Your task to perform on an android device: turn vacation reply on in the gmail app Image 0: 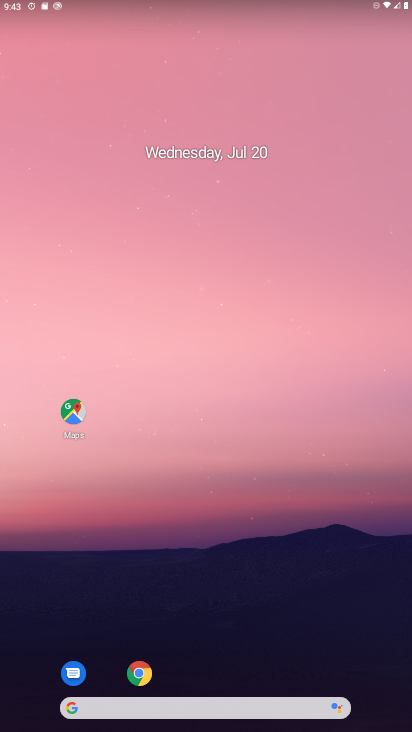
Step 0: drag from (340, 632) to (213, 147)
Your task to perform on an android device: turn vacation reply on in the gmail app Image 1: 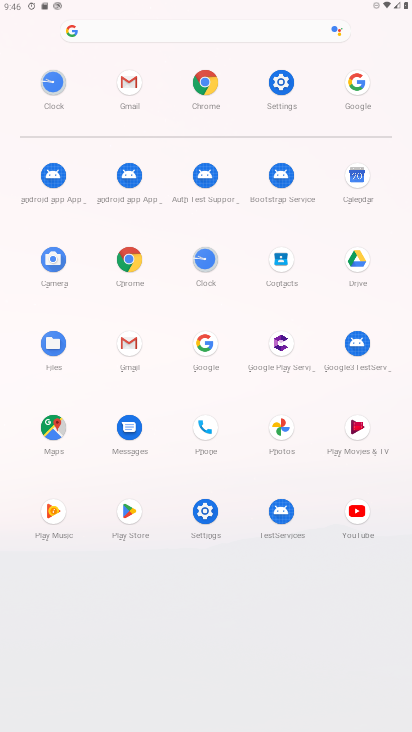
Step 1: click (121, 347)
Your task to perform on an android device: turn vacation reply on in the gmail app Image 2: 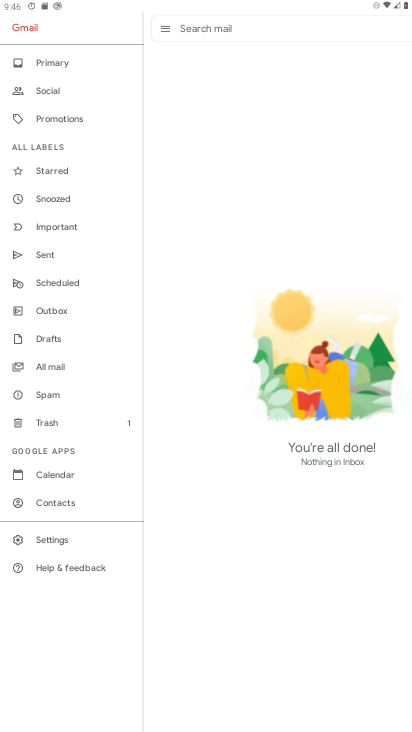
Step 2: click (60, 543)
Your task to perform on an android device: turn vacation reply on in the gmail app Image 3: 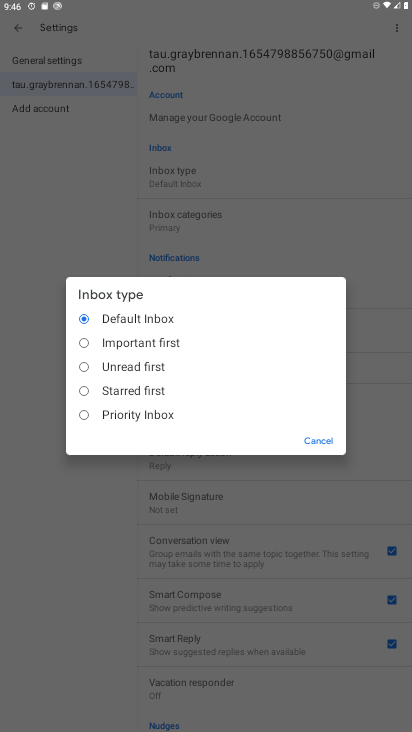
Step 3: click (306, 445)
Your task to perform on an android device: turn vacation reply on in the gmail app Image 4: 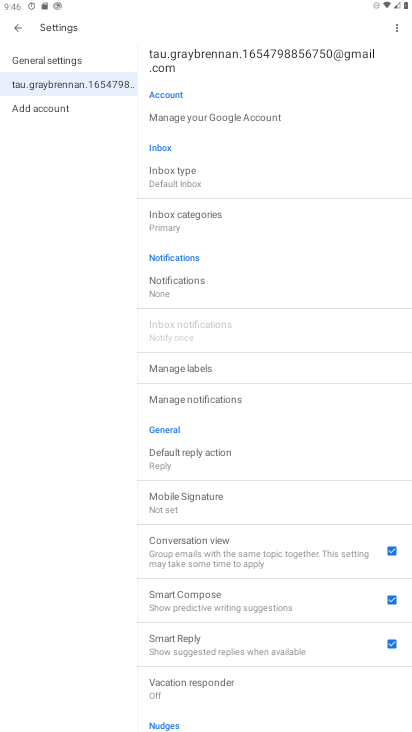
Step 4: click (214, 682)
Your task to perform on an android device: turn vacation reply on in the gmail app Image 5: 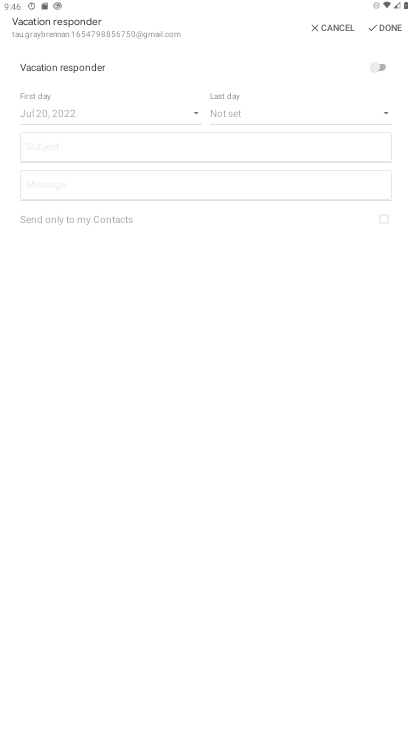
Step 5: click (379, 66)
Your task to perform on an android device: turn vacation reply on in the gmail app Image 6: 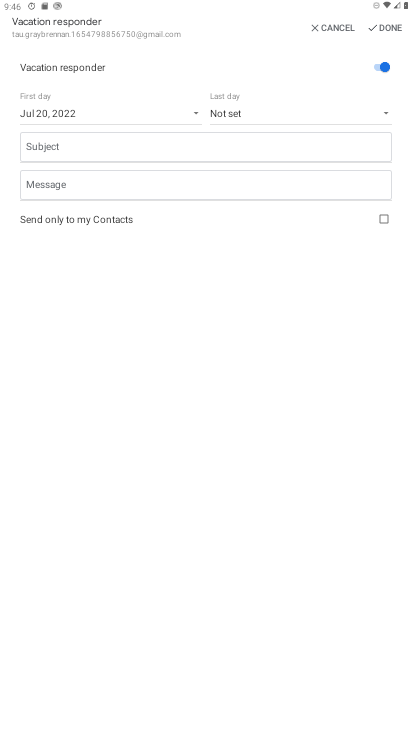
Step 6: task complete